Your task to perform on an android device: Go to accessibility settings Image 0: 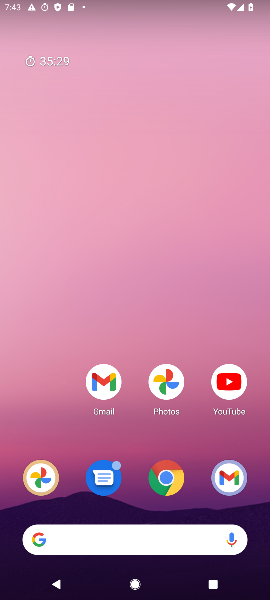
Step 0: drag from (132, 498) to (191, 128)
Your task to perform on an android device: Go to accessibility settings Image 1: 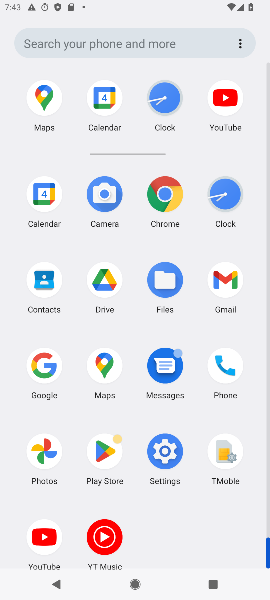
Step 1: click (166, 445)
Your task to perform on an android device: Go to accessibility settings Image 2: 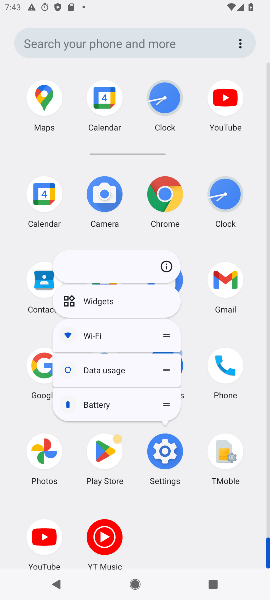
Step 2: click (165, 271)
Your task to perform on an android device: Go to accessibility settings Image 3: 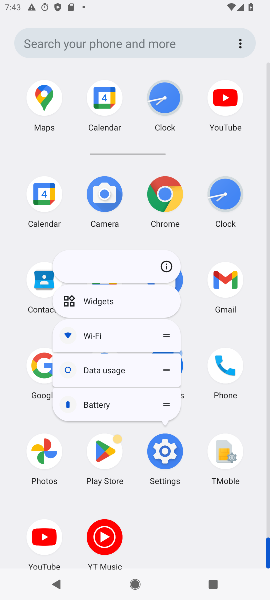
Step 3: click (165, 271)
Your task to perform on an android device: Go to accessibility settings Image 4: 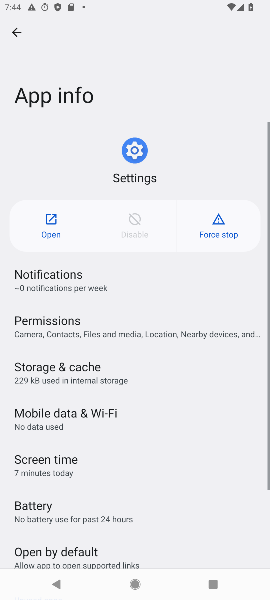
Step 4: drag from (76, 446) to (173, 62)
Your task to perform on an android device: Go to accessibility settings Image 5: 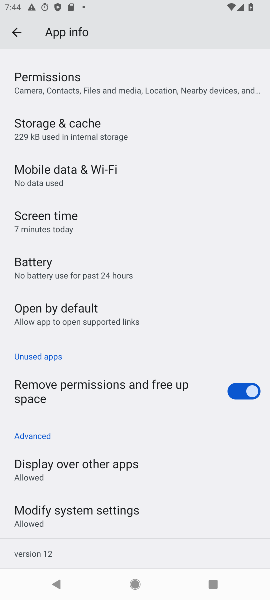
Step 5: drag from (92, 461) to (140, 162)
Your task to perform on an android device: Go to accessibility settings Image 6: 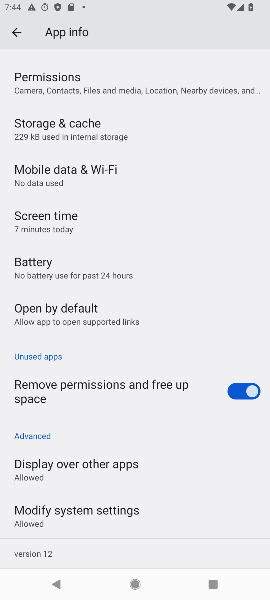
Step 6: click (24, 28)
Your task to perform on an android device: Go to accessibility settings Image 7: 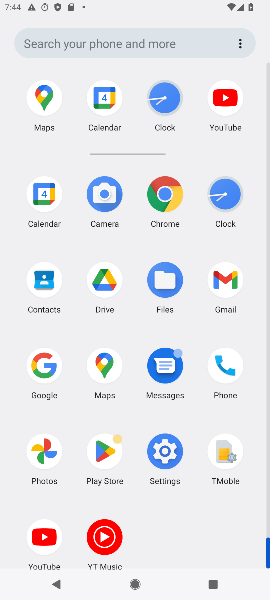
Step 7: click (156, 447)
Your task to perform on an android device: Go to accessibility settings Image 8: 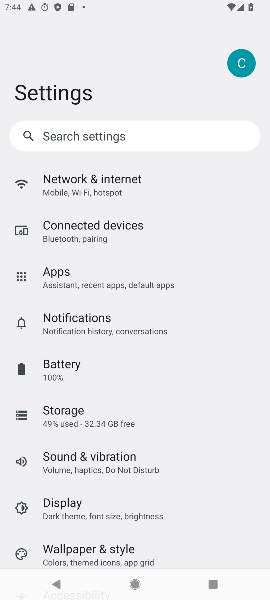
Step 8: drag from (107, 474) to (162, 173)
Your task to perform on an android device: Go to accessibility settings Image 9: 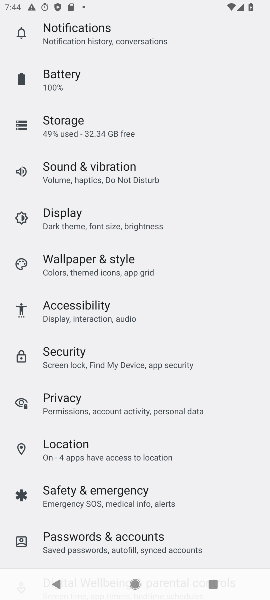
Step 9: click (96, 307)
Your task to perform on an android device: Go to accessibility settings Image 10: 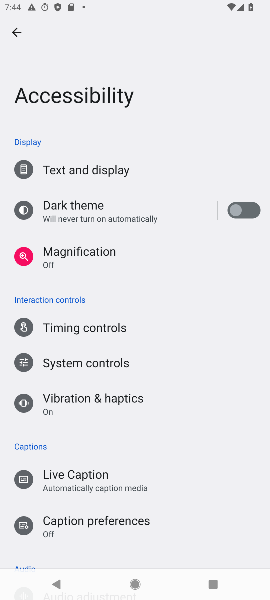
Step 10: task complete